Your task to perform on an android device: Search for Mexican restaurants on Maps Image 0: 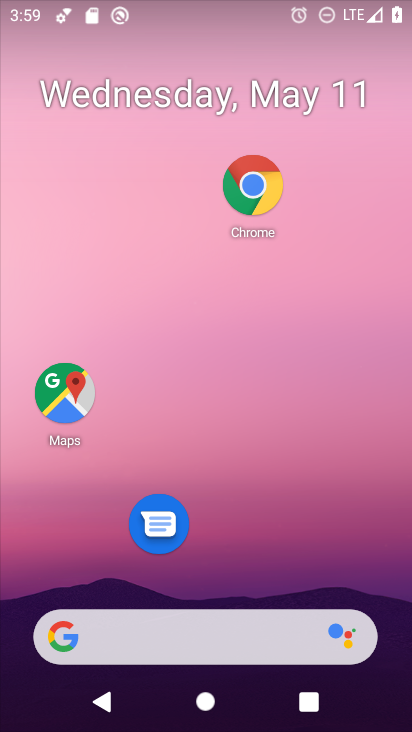
Step 0: click (68, 395)
Your task to perform on an android device: Search for Mexican restaurants on Maps Image 1: 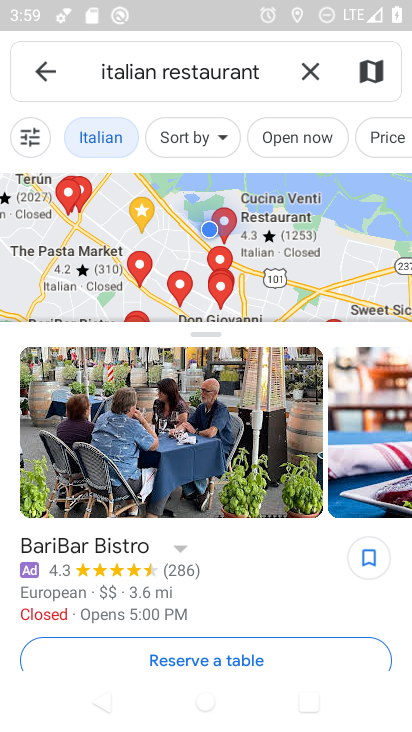
Step 1: click (312, 68)
Your task to perform on an android device: Search for Mexican restaurants on Maps Image 2: 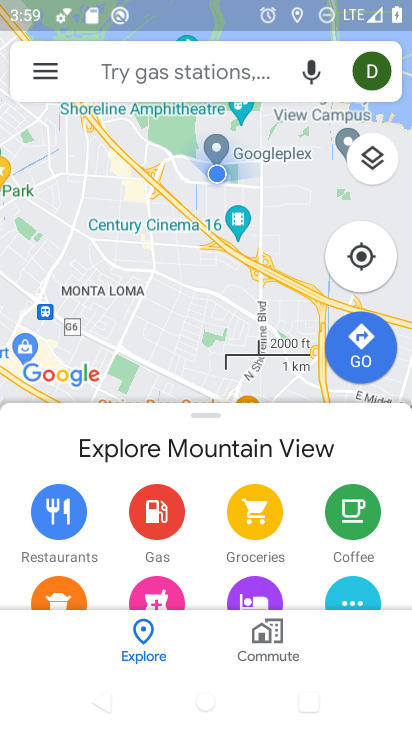
Step 2: click (206, 65)
Your task to perform on an android device: Search for Mexican restaurants on Maps Image 3: 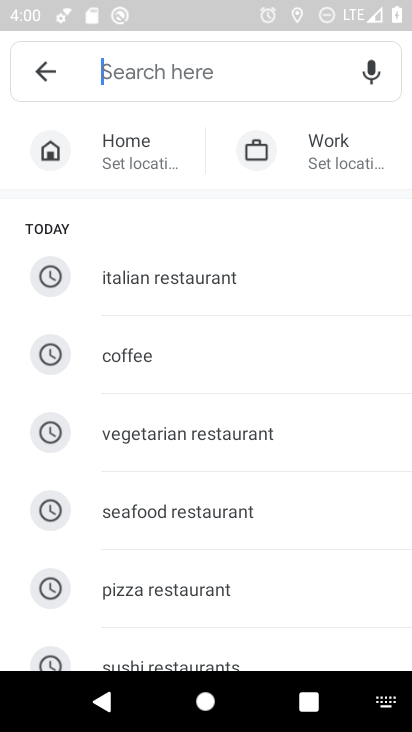
Step 3: type "maxican restaurants"
Your task to perform on an android device: Search for Mexican restaurants on Maps Image 4: 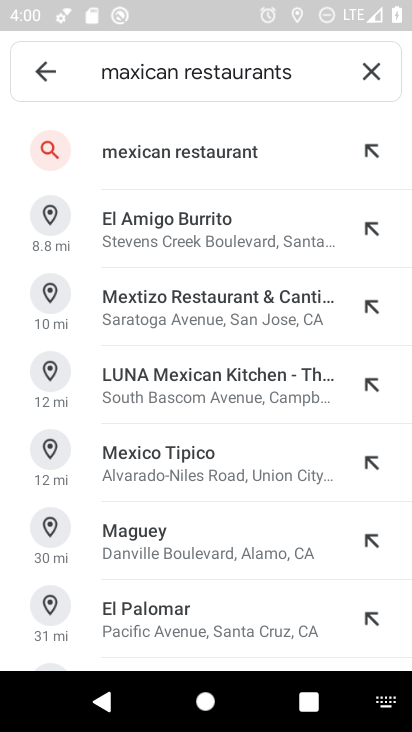
Step 4: click (150, 145)
Your task to perform on an android device: Search for Mexican restaurants on Maps Image 5: 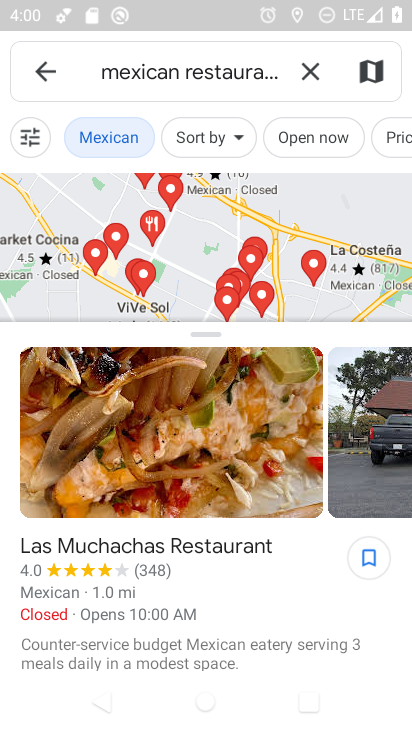
Step 5: task complete